Your task to perform on an android device: Search for the new Apple Watch on Best Buy Image 0: 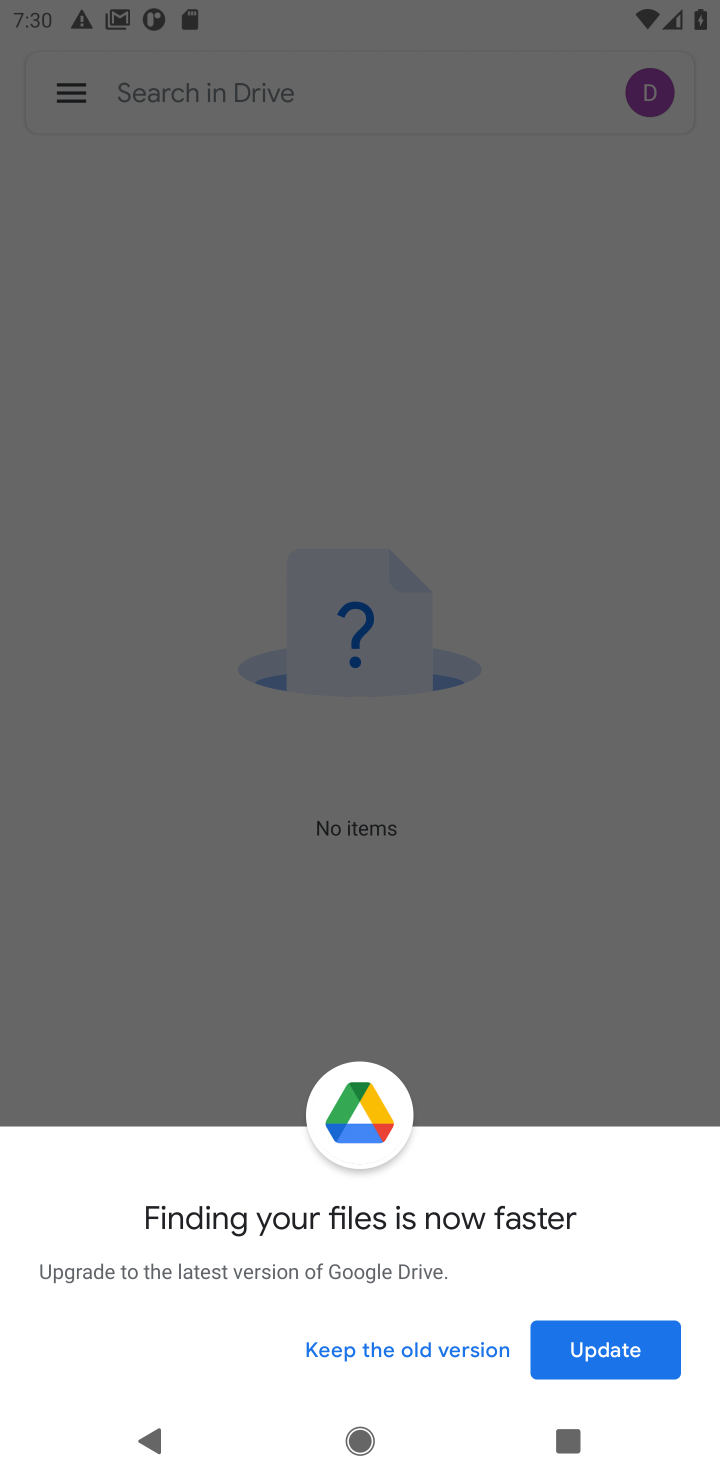
Step 0: press home button
Your task to perform on an android device: Search for the new Apple Watch on Best Buy Image 1: 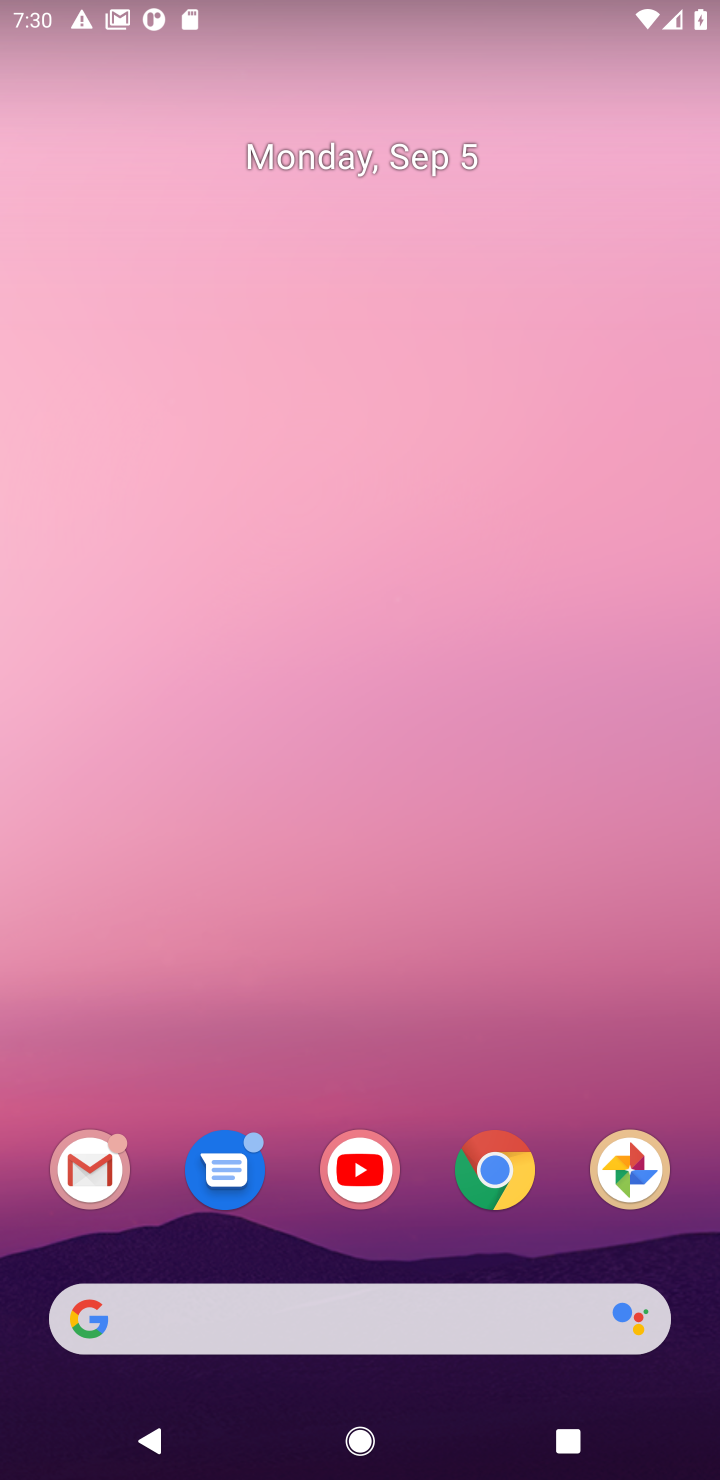
Step 1: click (511, 1178)
Your task to perform on an android device: Search for the new Apple Watch on Best Buy Image 2: 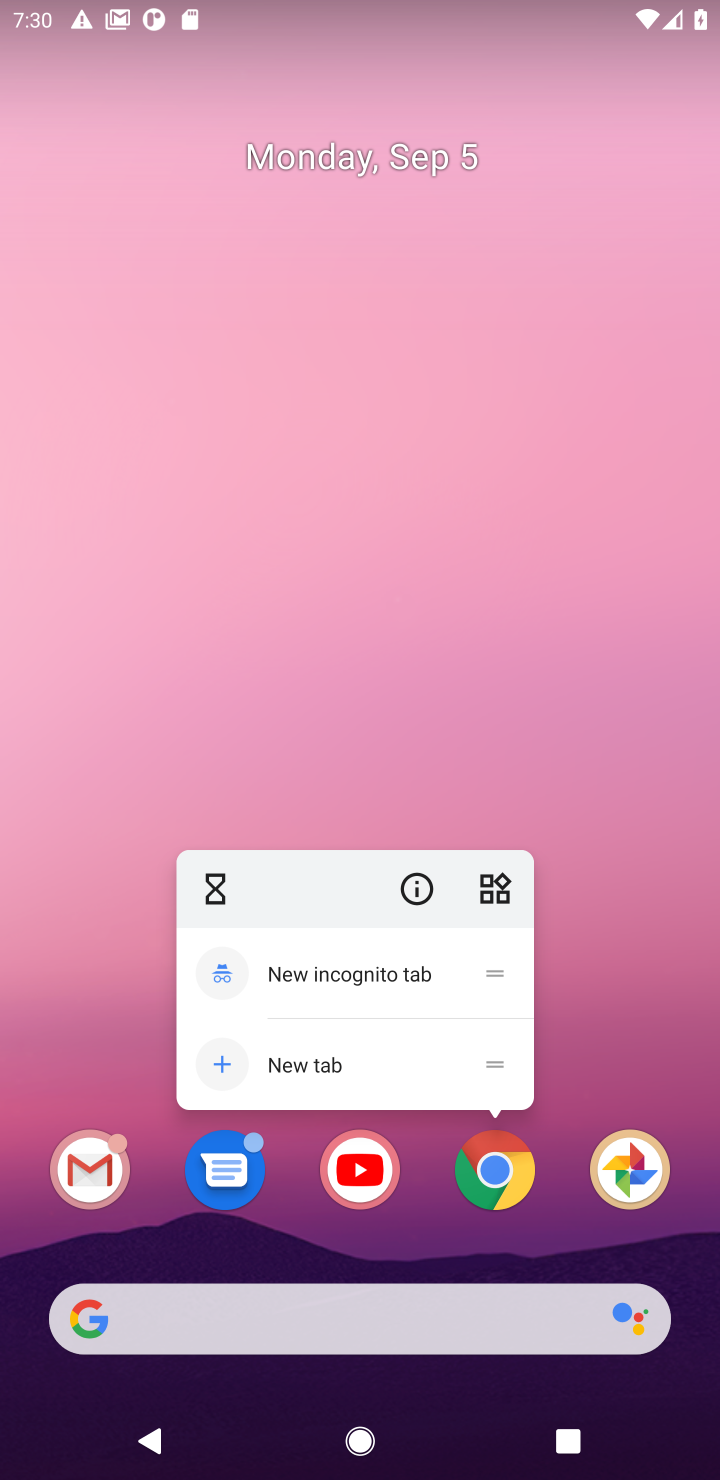
Step 2: click (511, 1178)
Your task to perform on an android device: Search for the new Apple Watch on Best Buy Image 3: 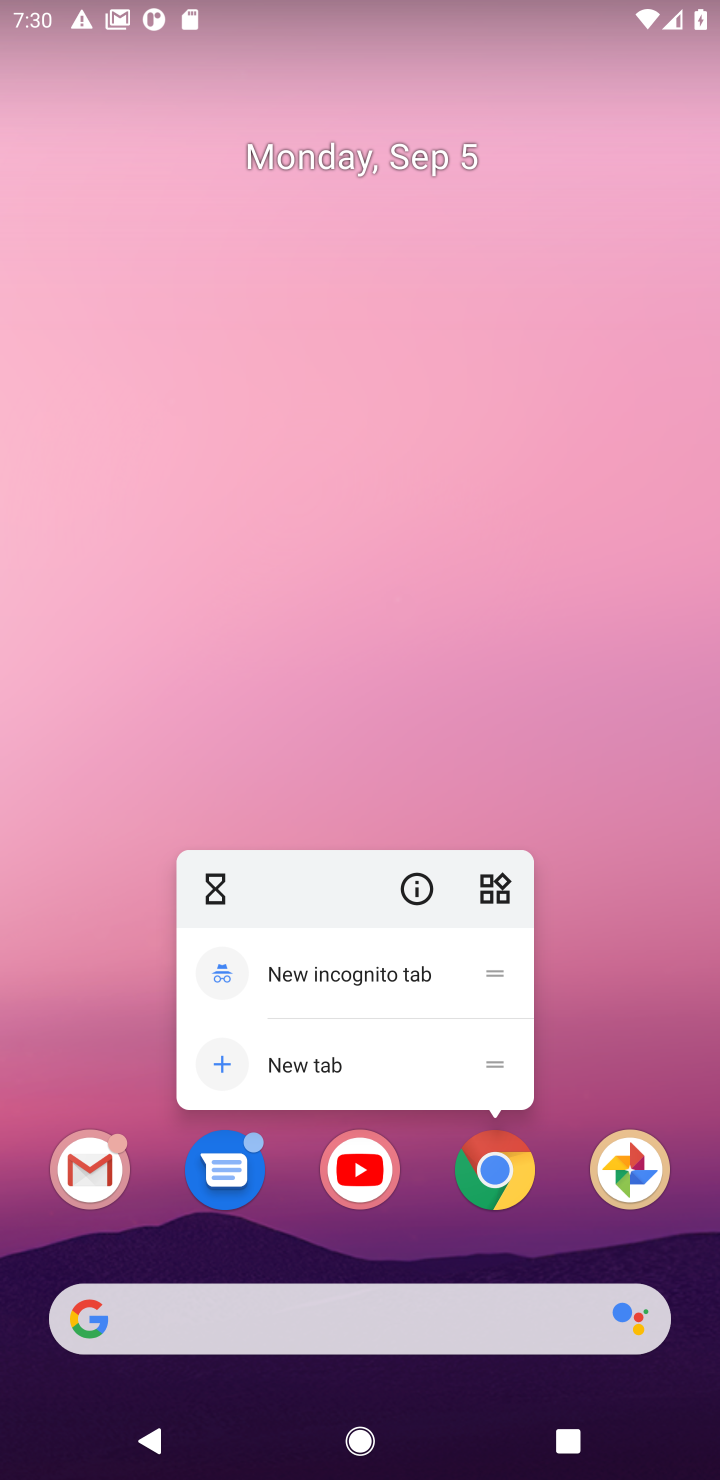
Step 3: click (475, 1166)
Your task to perform on an android device: Search for the new Apple Watch on Best Buy Image 4: 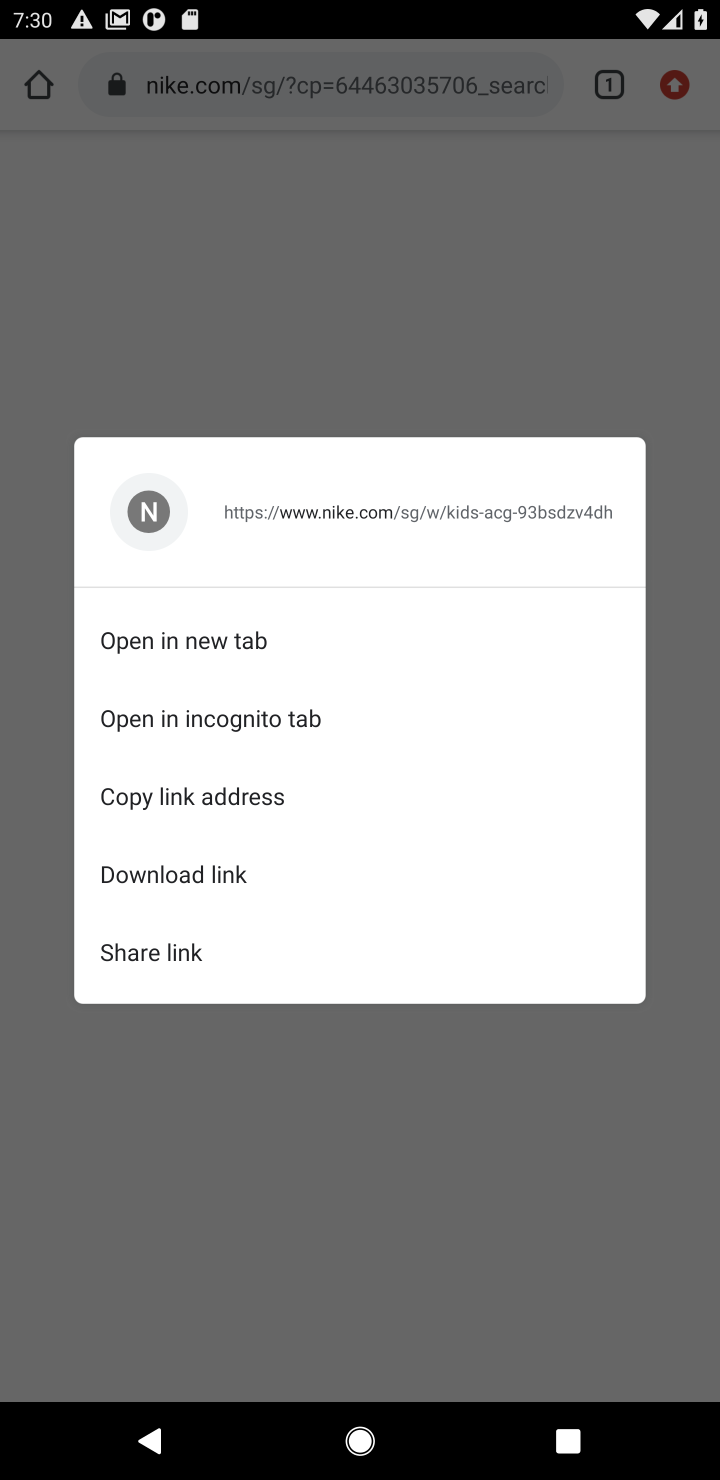
Step 4: click (326, 219)
Your task to perform on an android device: Search for the new Apple Watch on Best Buy Image 5: 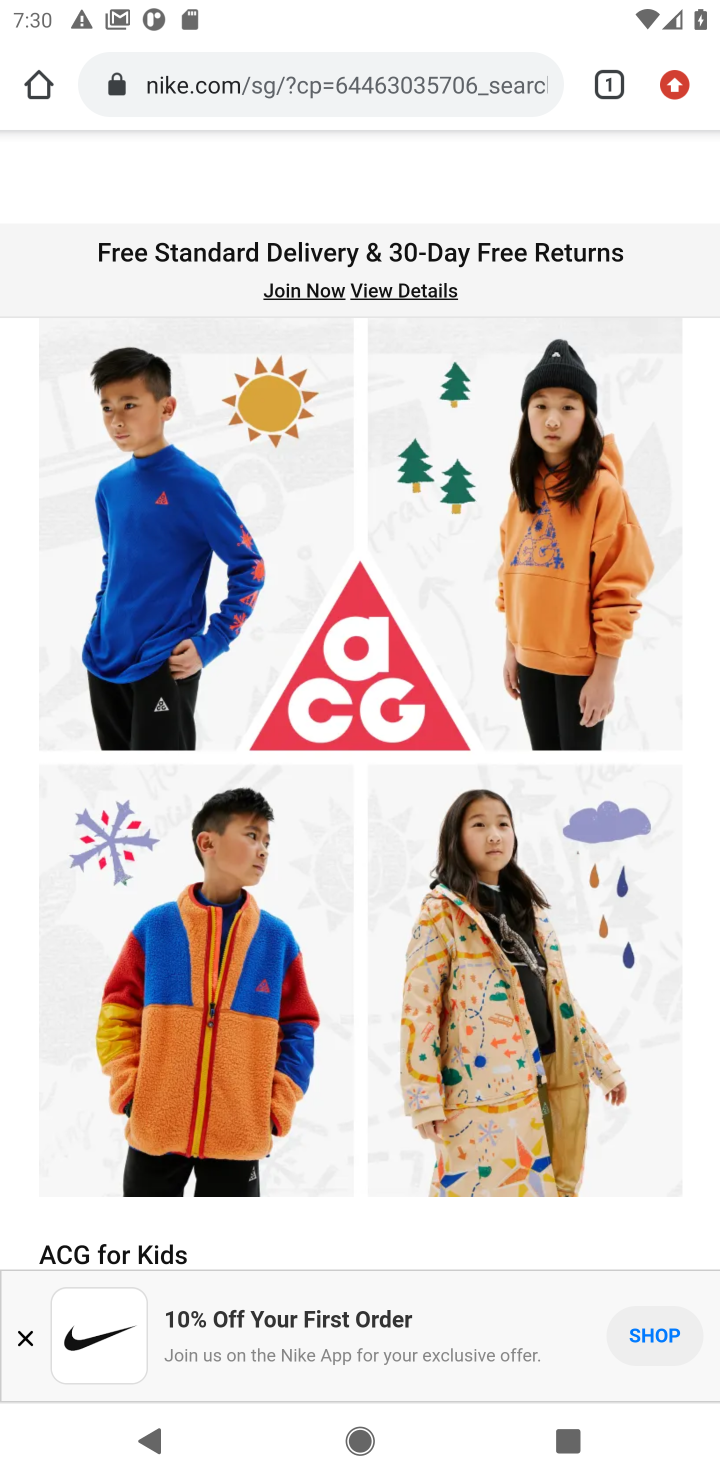
Step 5: click (323, 85)
Your task to perform on an android device: Search for the new Apple Watch on Best Buy Image 6: 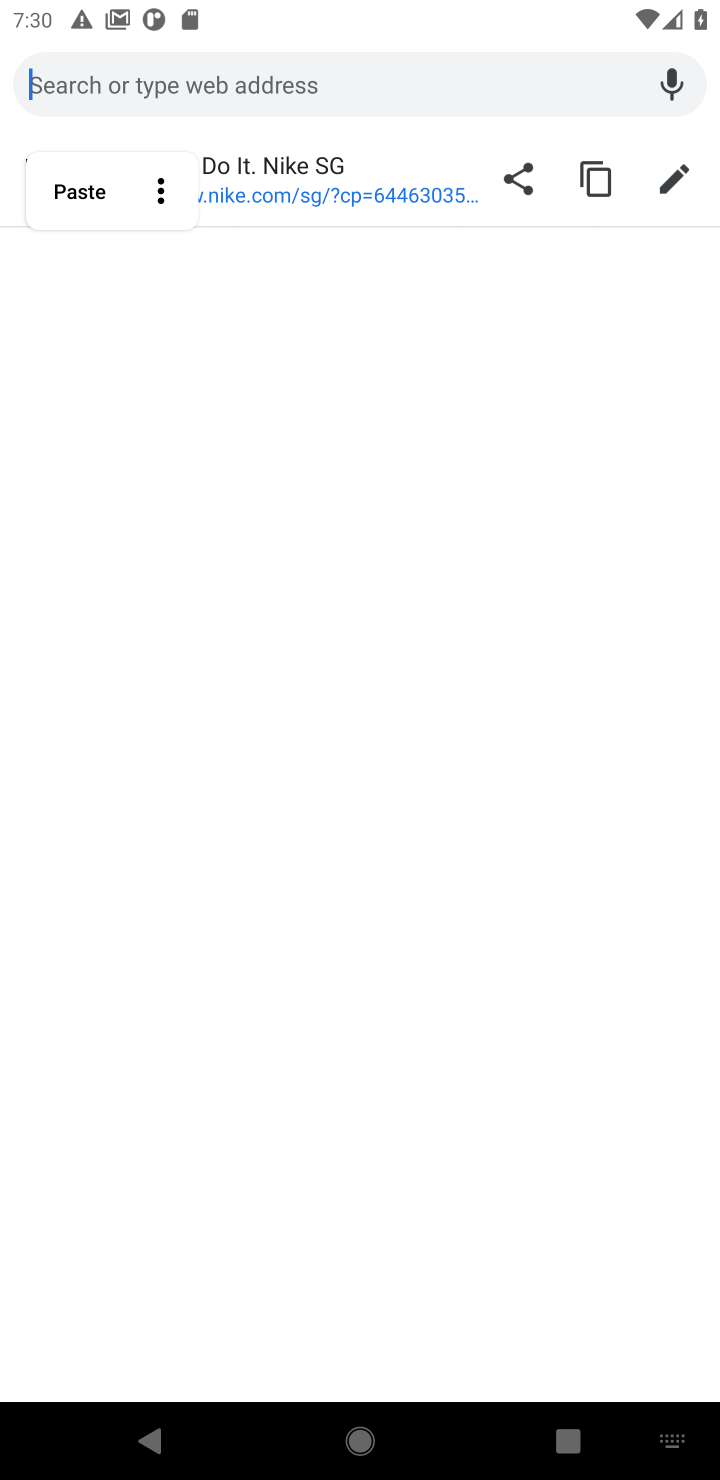
Step 6: type "best buy"
Your task to perform on an android device: Search for the new Apple Watch on Best Buy Image 7: 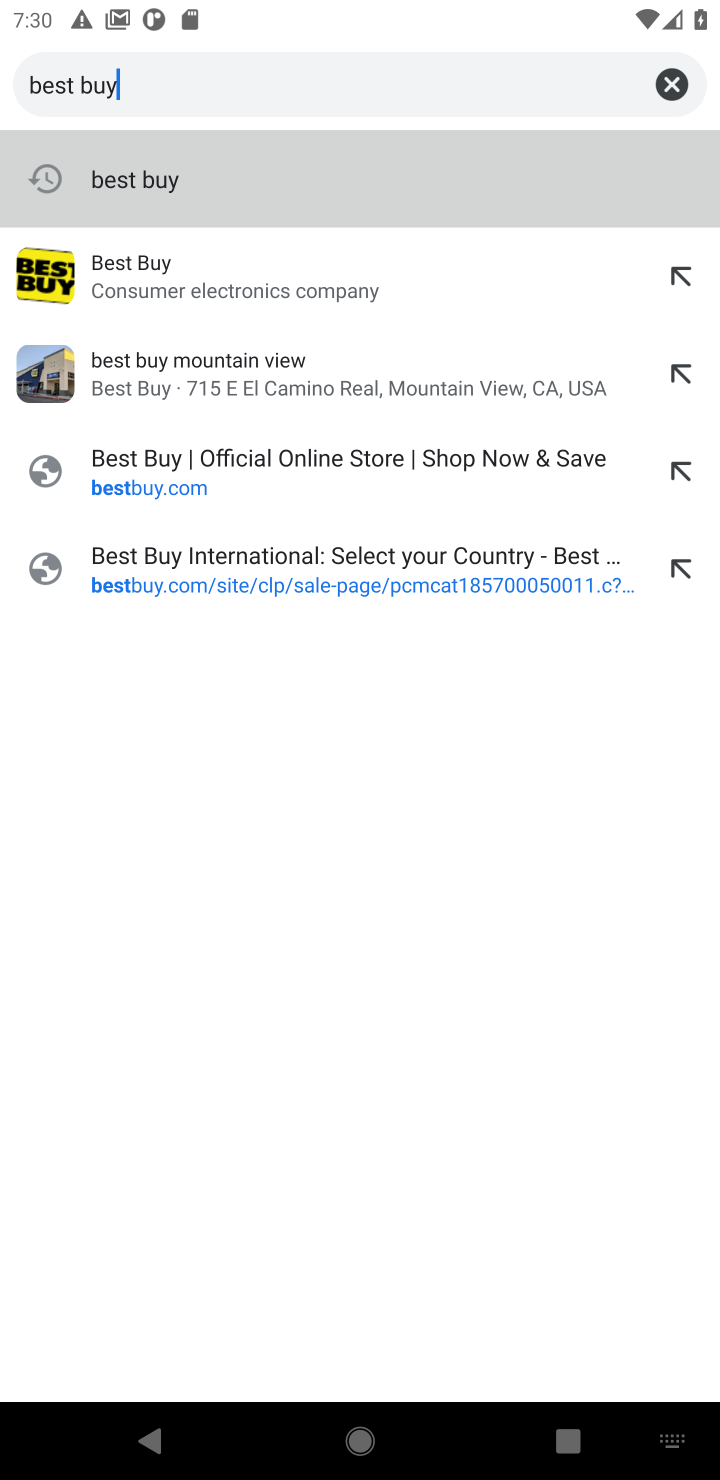
Step 7: click (173, 257)
Your task to perform on an android device: Search for the new Apple Watch on Best Buy Image 8: 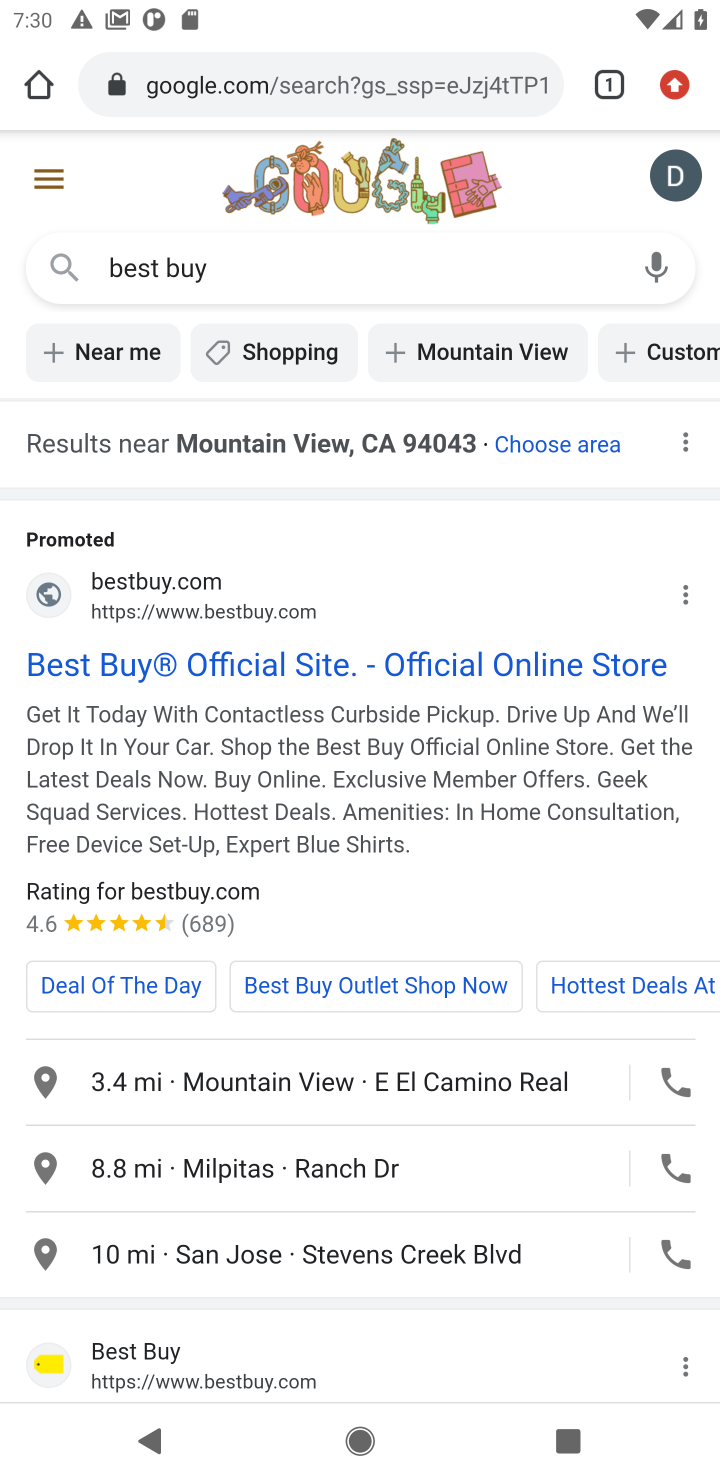
Step 8: click (229, 645)
Your task to perform on an android device: Search for the new Apple Watch on Best Buy Image 9: 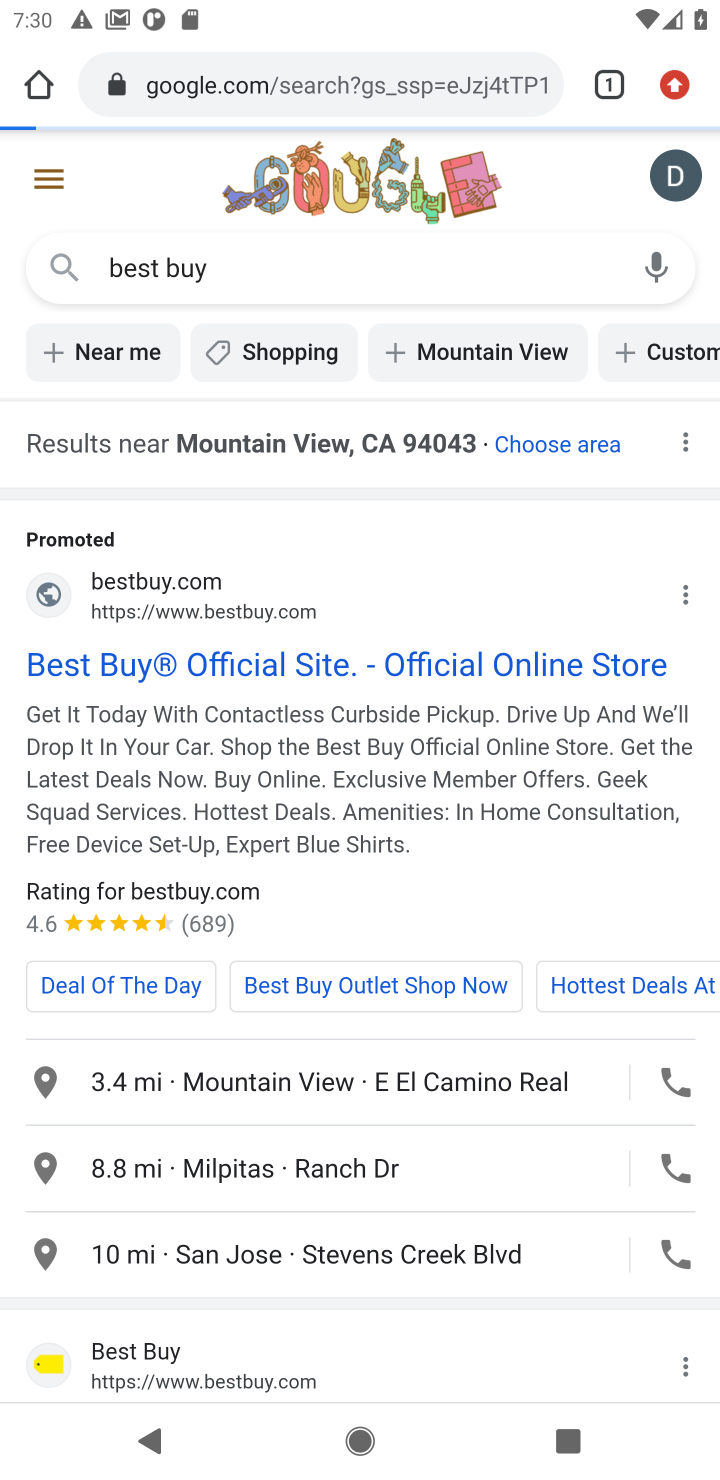
Step 9: click (219, 664)
Your task to perform on an android device: Search for the new Apple Watch on Best Buy Image 10: 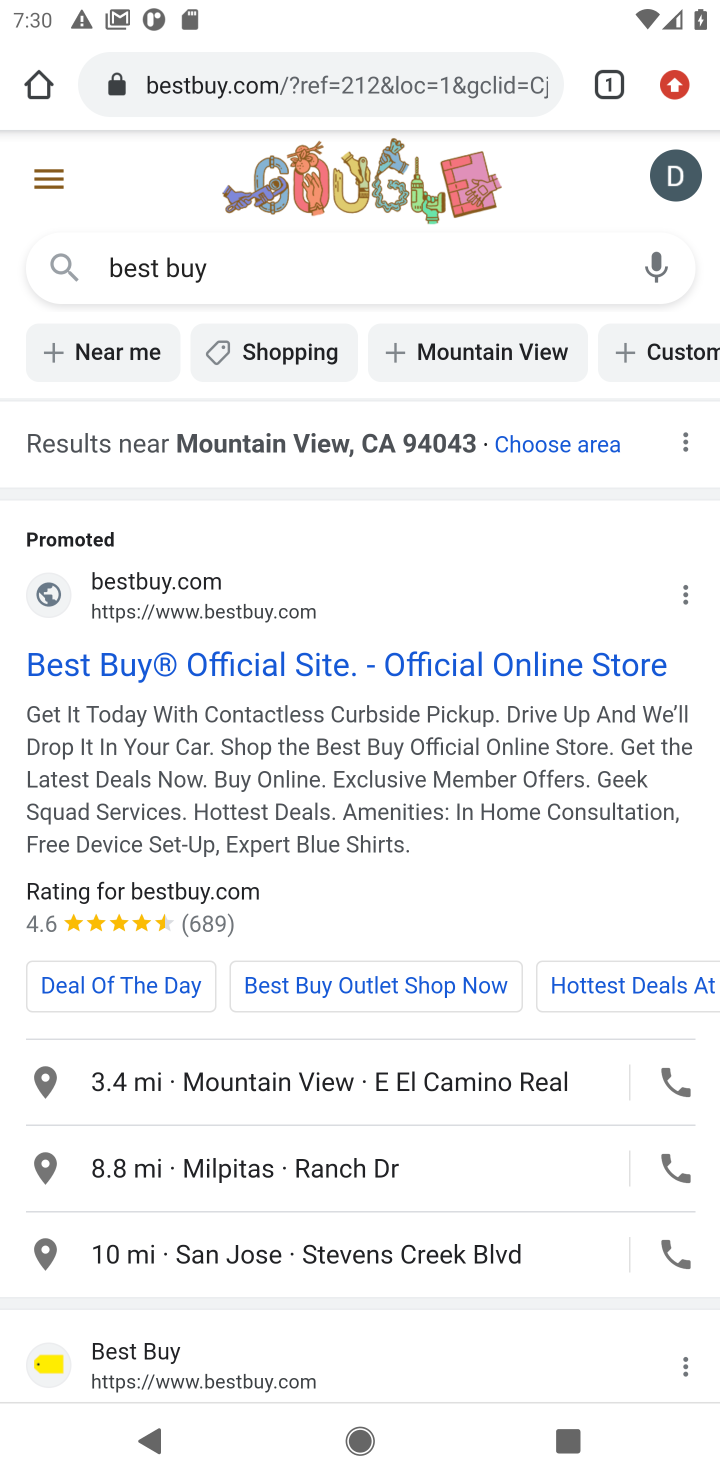
Step 10: click (215, 672)
Your task to perform on an android device: Search for the new Apple Watch on Best Buy Image 11: 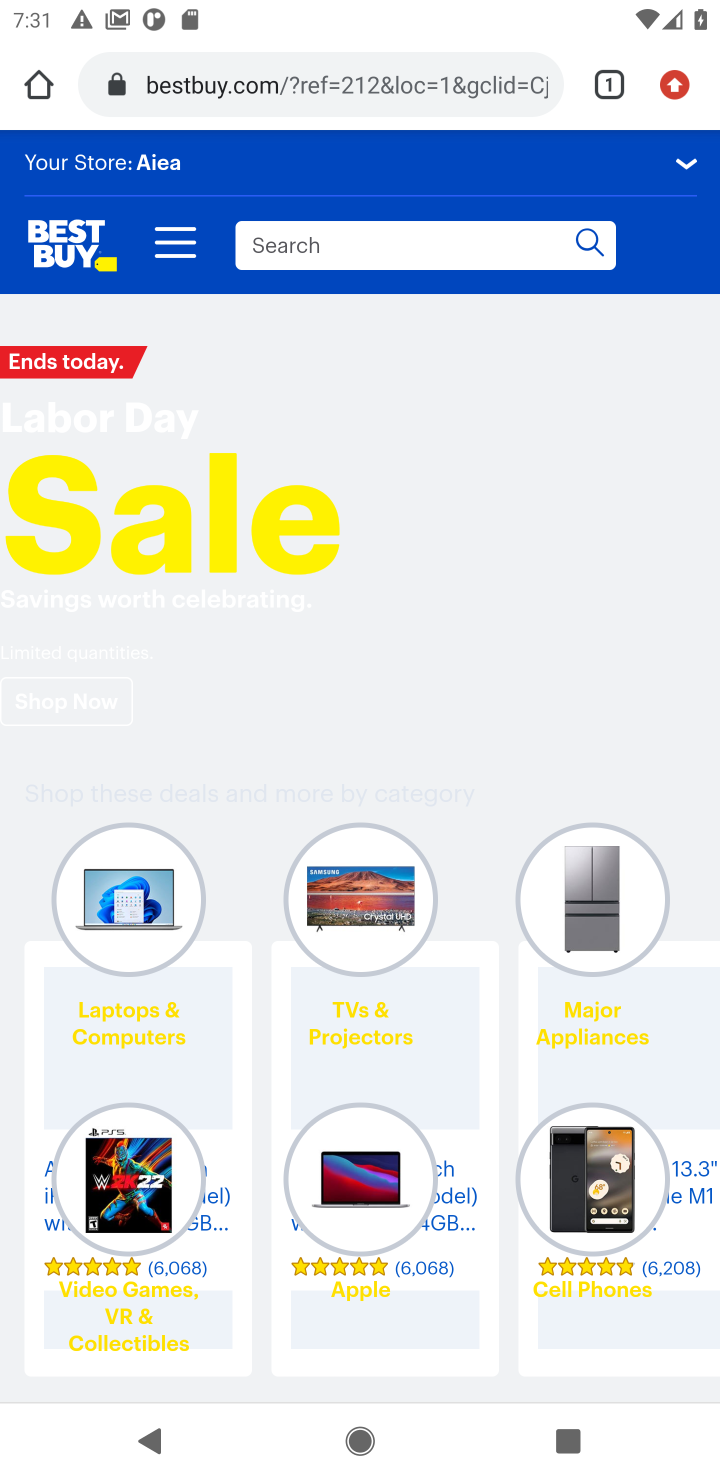
Step 11: click (381, 221)
Your task to perform on an android device: Search for the new Apple Watch on Best Buy Image 12: 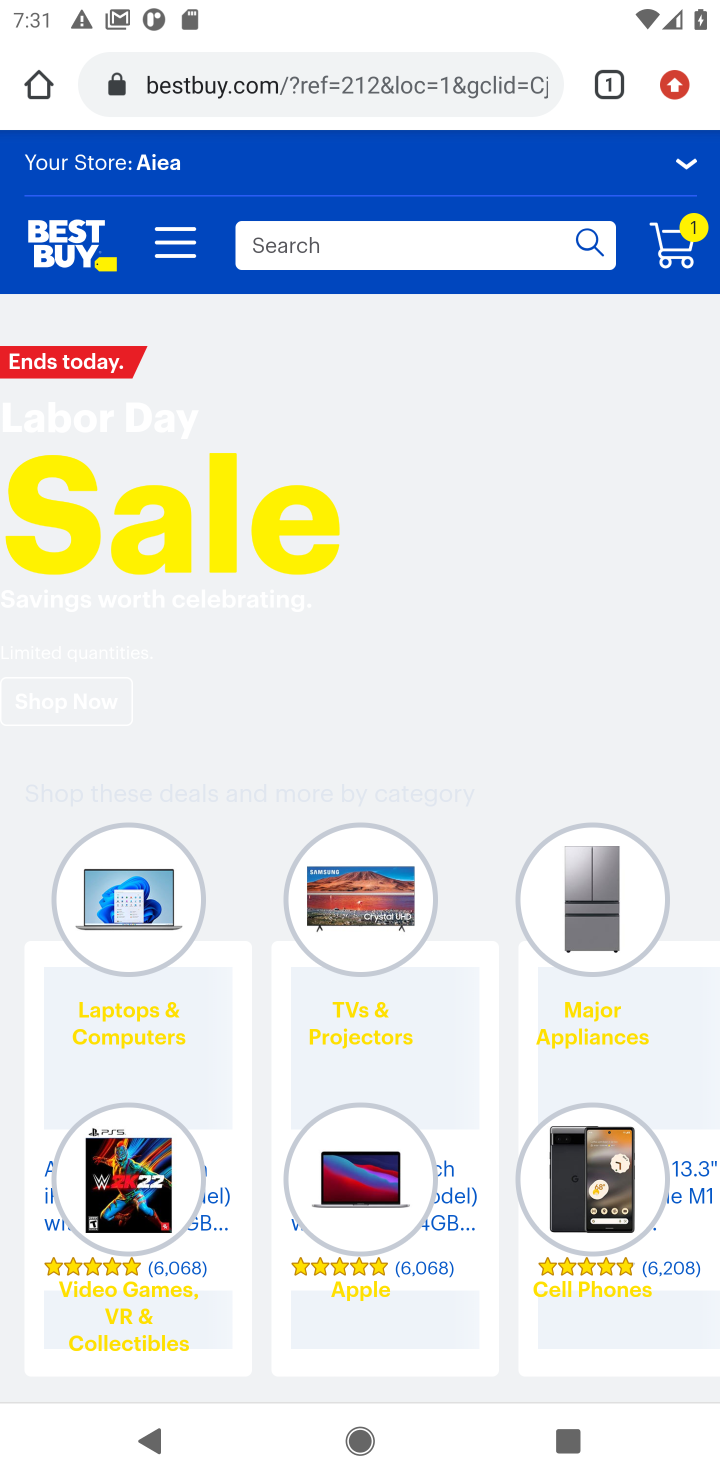
Step 12: click (369, 241)
Your task to perform on an android device: Search for the new Apple Watch on Best Buy Image 13: 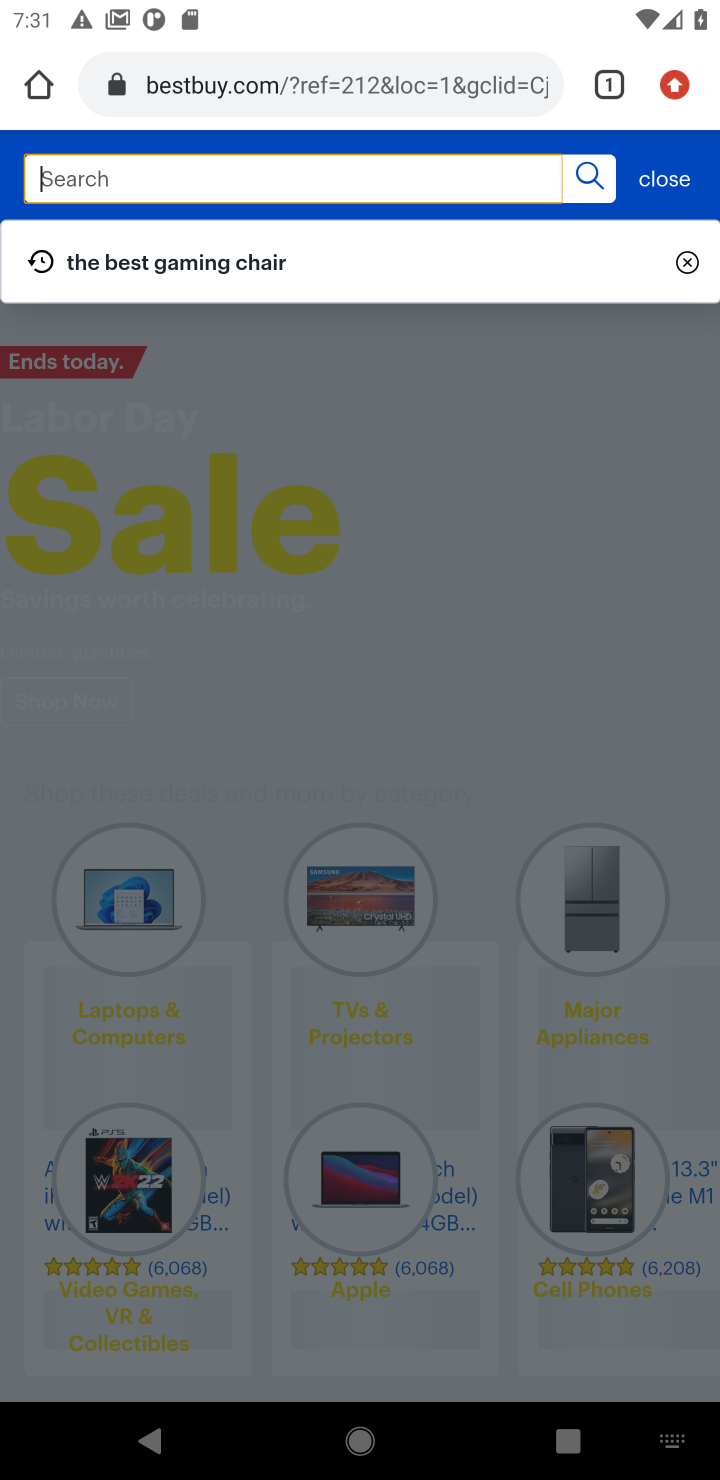
Step 13: type "the new apple watch"
Your task to perform on an android device: Search for the new Apple Watch on Best Buy Image 14: 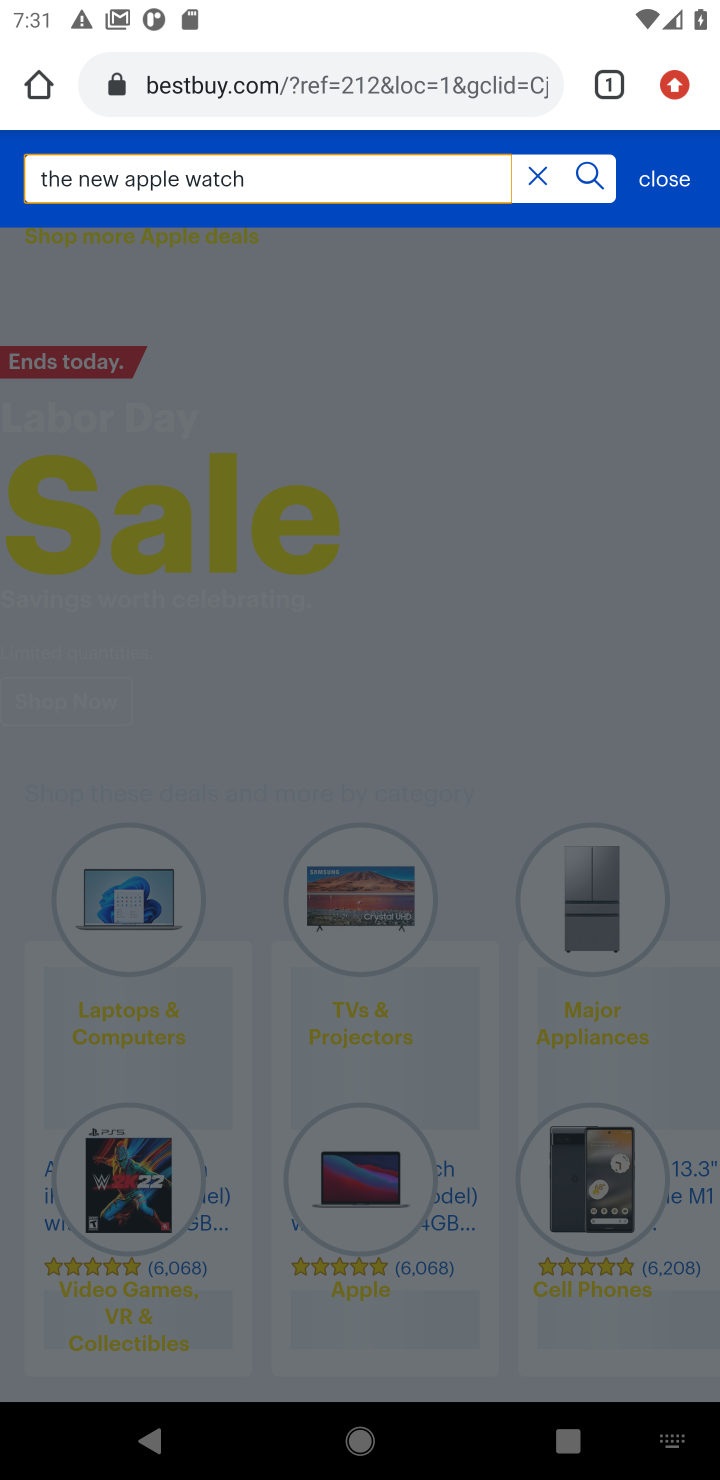
Step 14: click (598, 168)
Your task to perform on an android device: Search for the new Apple Watch on Best Buy Image 15: 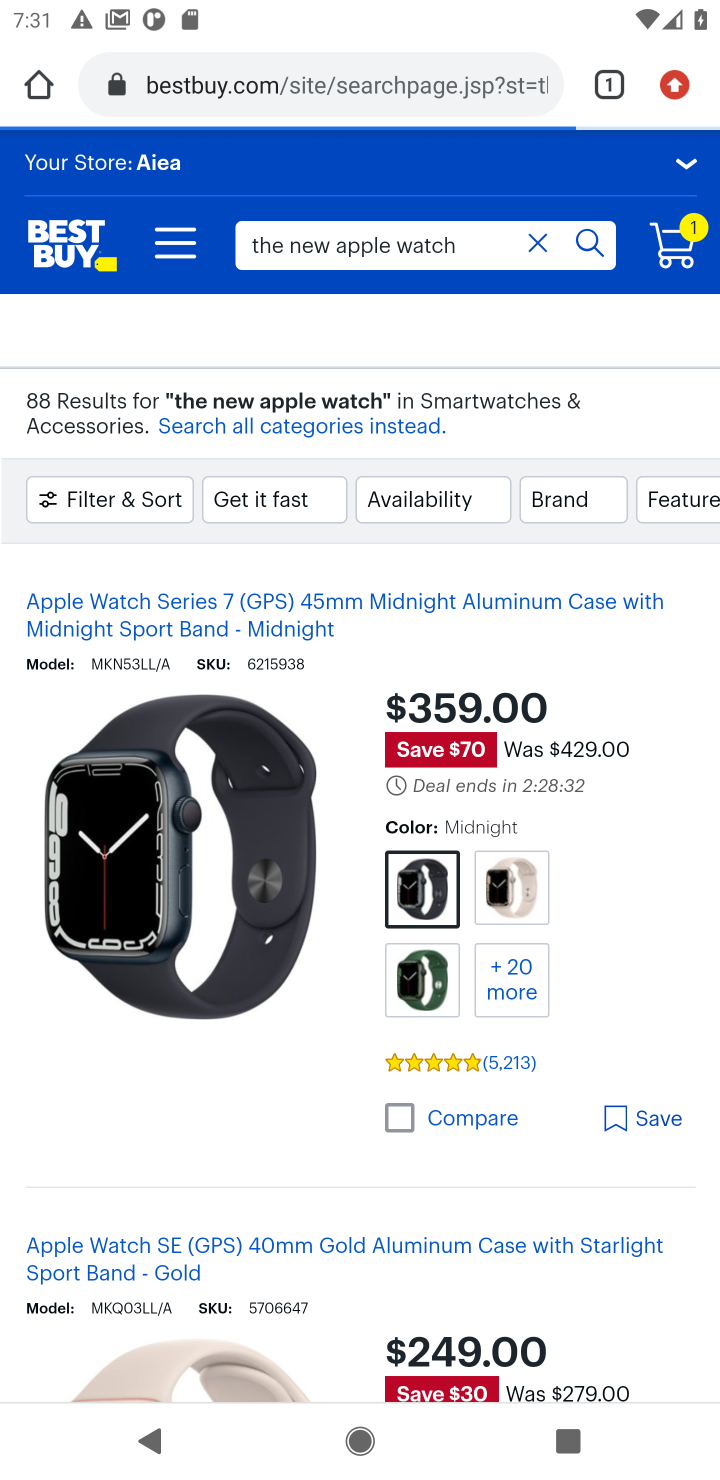
Step 15: task complete